Your task to perform on an android device: set the timer Image 0: 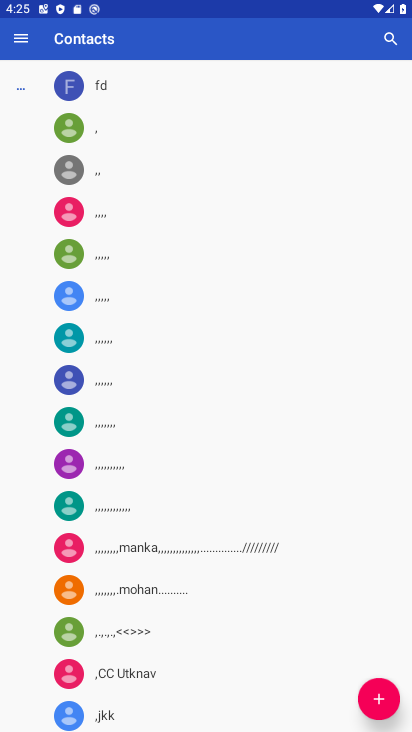
Step 0: press back button
Your task to perform on an android device: set the timer Image 1: 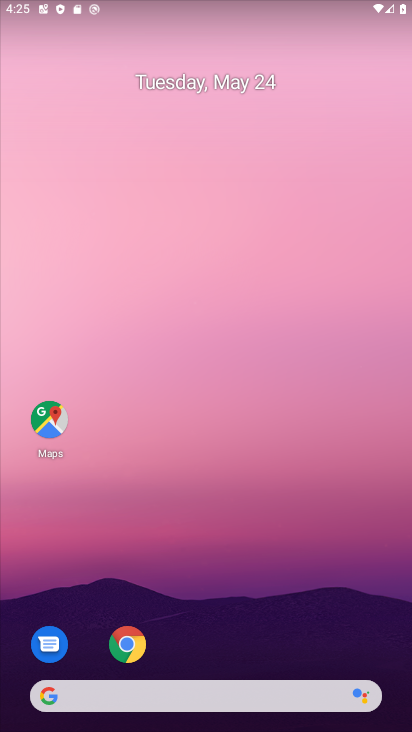
Step 1: drag from (270, 553) to (188, 117)
Your task to perform on an android device: set the timer Image 2: 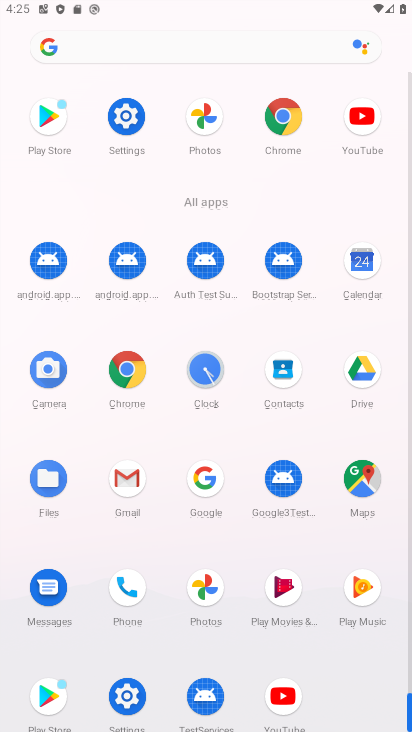
Step 2: click (206, 376)
Your task to perform on an android device: set the timer Image 3: 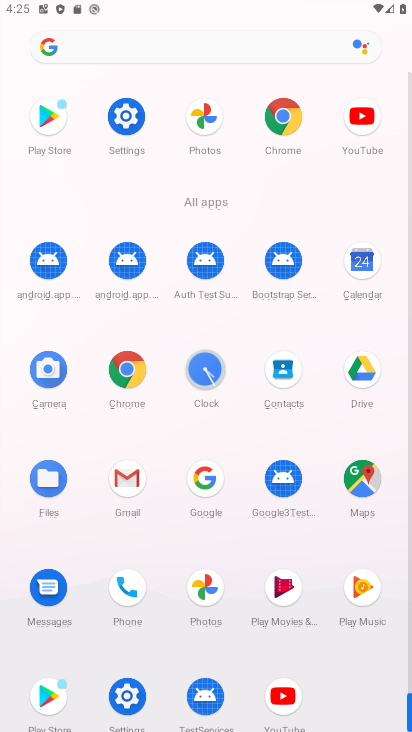
Step 3: click (207, 375)
Your task to perform on an android device: set the timer Image 4: 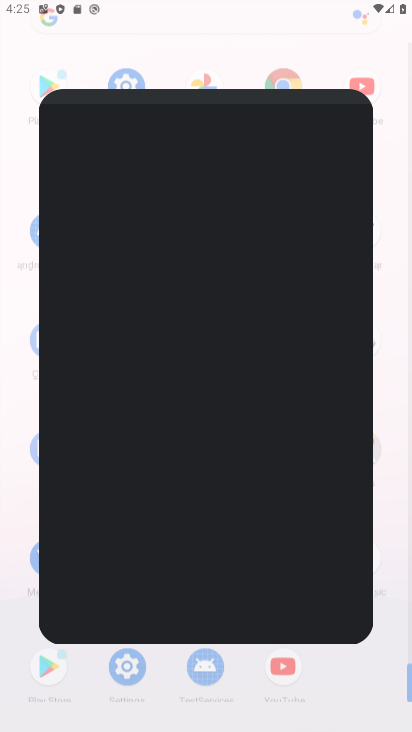
Step 4: click (207, 375)
Your task to perform on an android device: set the timer Image 5: 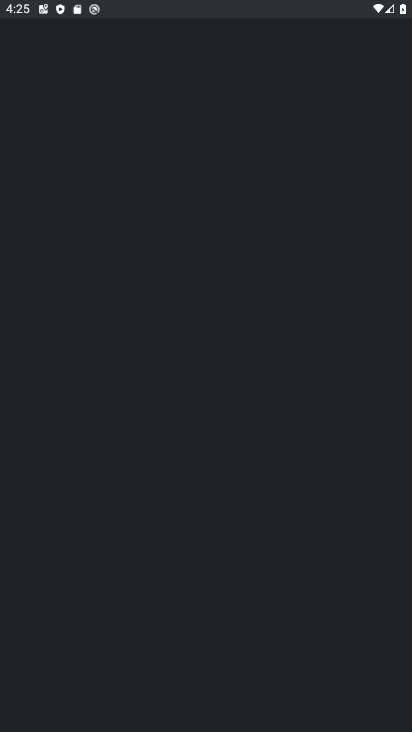
Step 5: click (207, 375)
Your task to perform on an android device: set the timer Image 6: 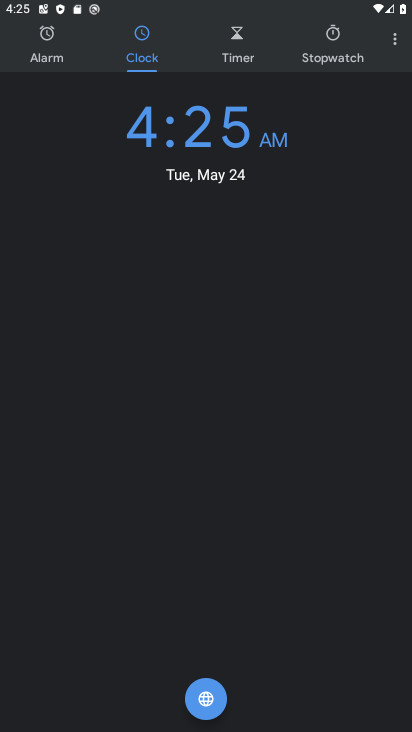
Step 6: click (233, 49)
Your task to perform on an android device: set the timer Image 7: 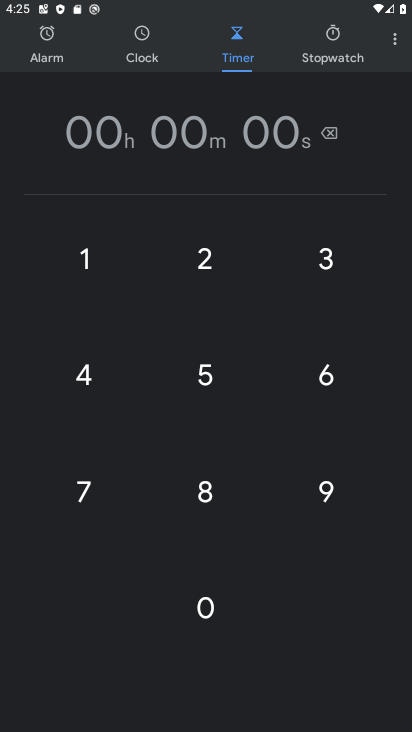
Step 7: click (201, 488)
Your task to perform on an android device: set the timer Image 8: 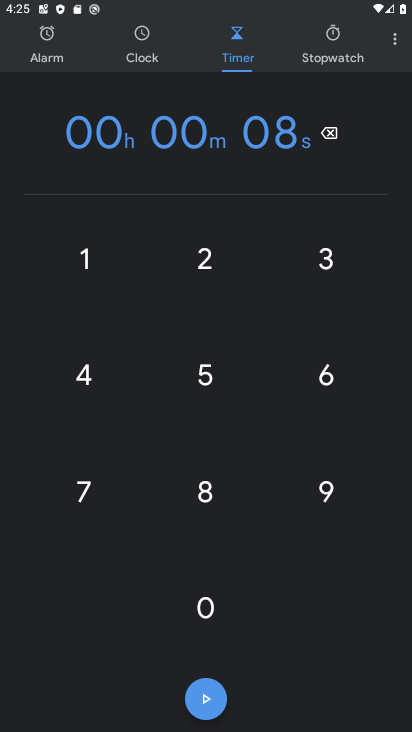
Step 8: click (202, 487)
Your task to perform on an android device: set the timer Image 9: 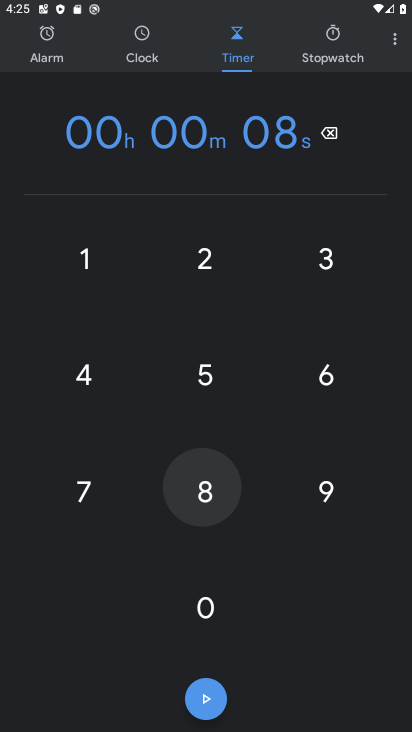
Step 9: click (202, 487)
Your task to perform on an android device: set the timer Image 10: 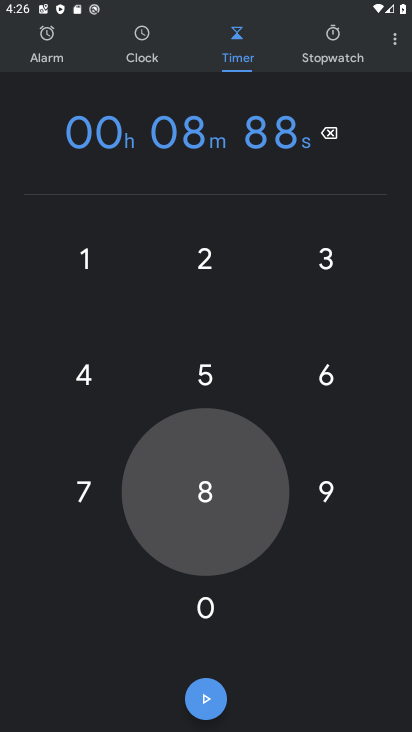
Step 10: click (202, 488)
Your task to perform on an android device: set the timer Image 11: 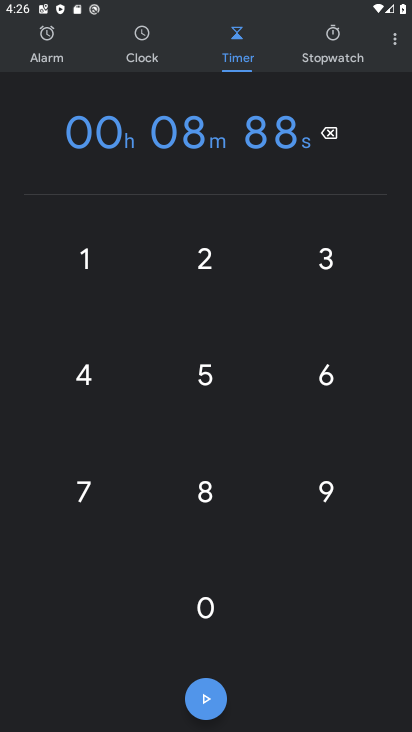
Step 11: click (202, 488)
Your task to perform on an android device: set the timer Image 12: 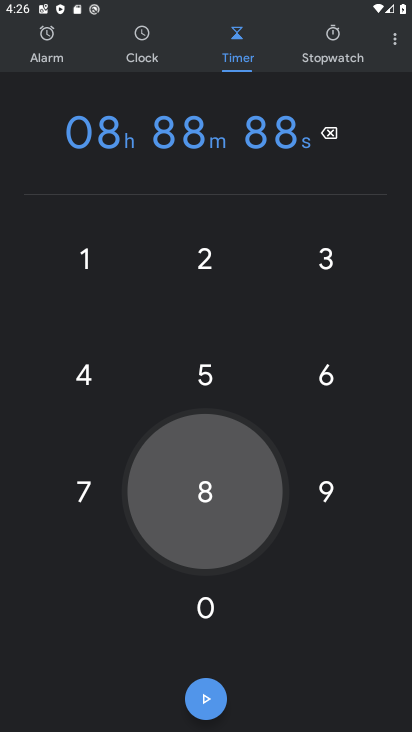
Step 12: click (204, 489)
Your task to perform on an android device: set the timer Image 13: 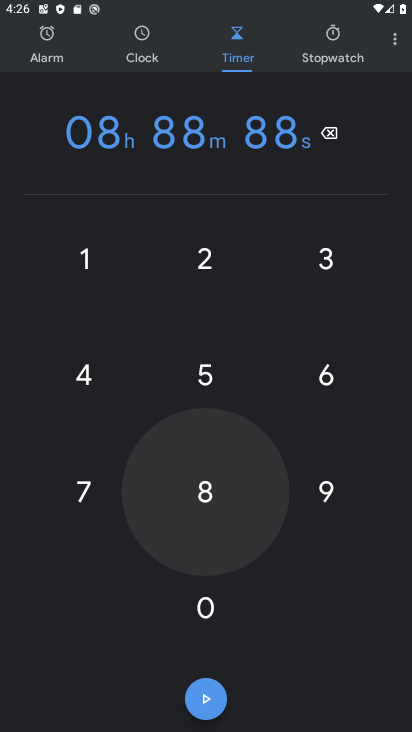
Step 13: click (204, 489)
Your task to perform on an android device: set the timer Image 14: 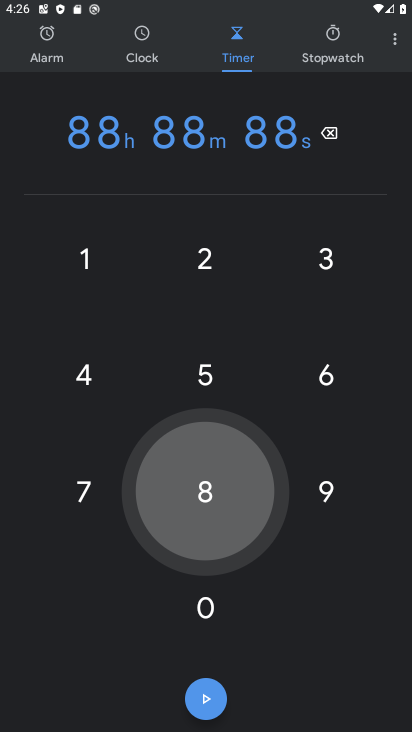
Step 14: click (207, 489)
Your task to perform on an android device: set the timer Image 15: 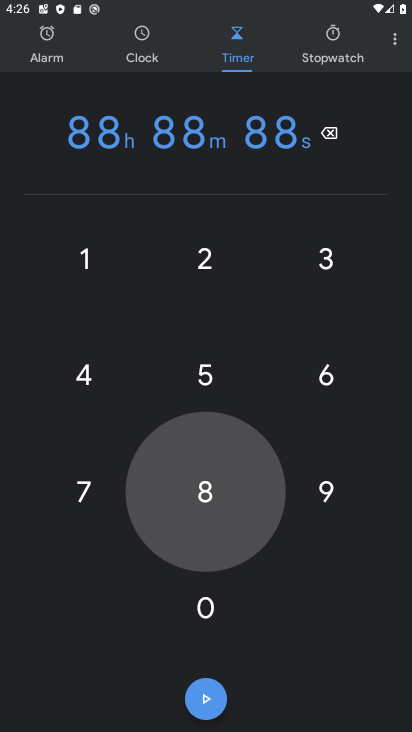
Step 15: click (209, 485)
Your task to perform on an android device: set the timer Image 16: 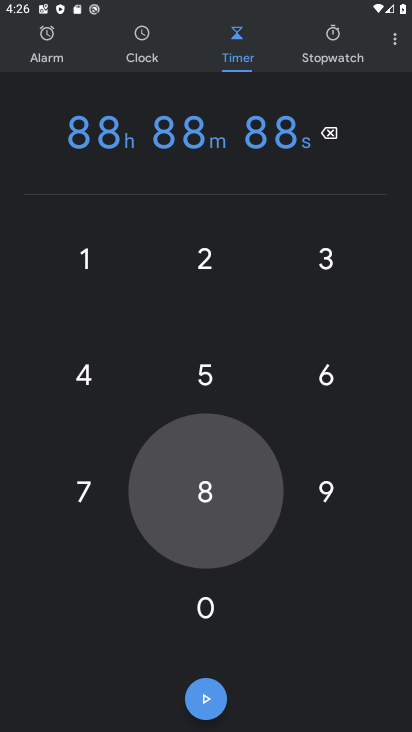
Step 16: click (211, 488)
Your task to perform on an android device: set the timer Image 17: 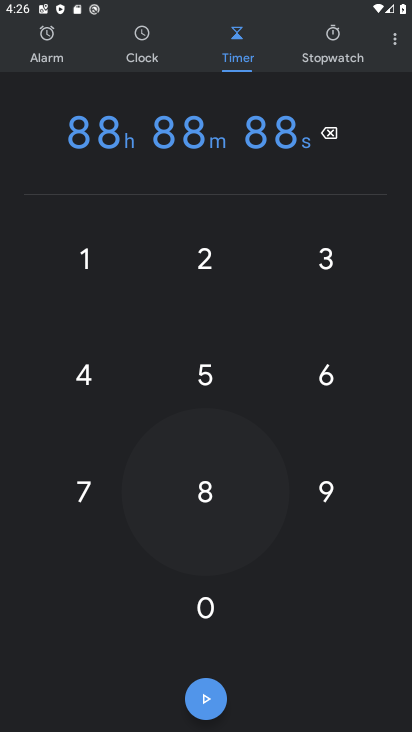
Step 17: click (208, 493)
Your task to perform on an android device: set the timer Image 18: 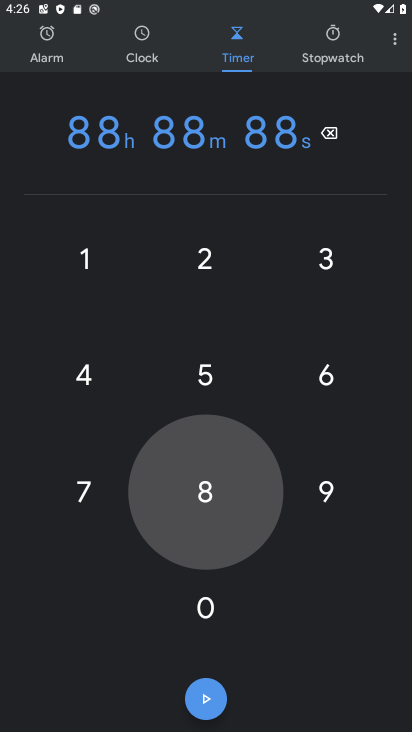
Step 18: click (204, 491)
Your task to perform on an android device: set the timer Image 19: 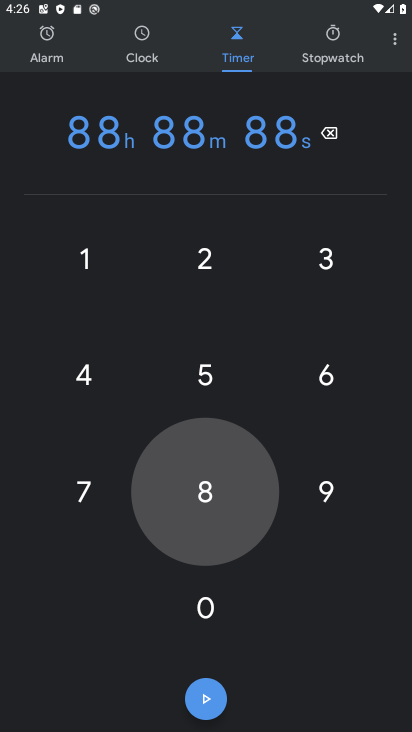
Step 19: click (205, 488)
Your task to perform on an android device: set the timer Image 20: 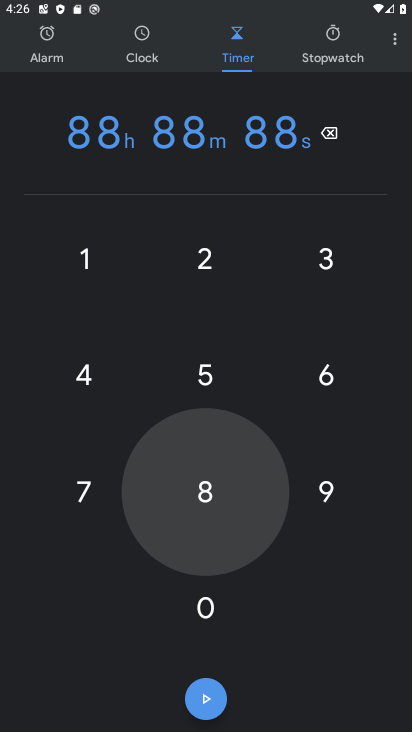
Step 20: click (214, 486)
Your task to perform on an android device: set the timer Image 21: 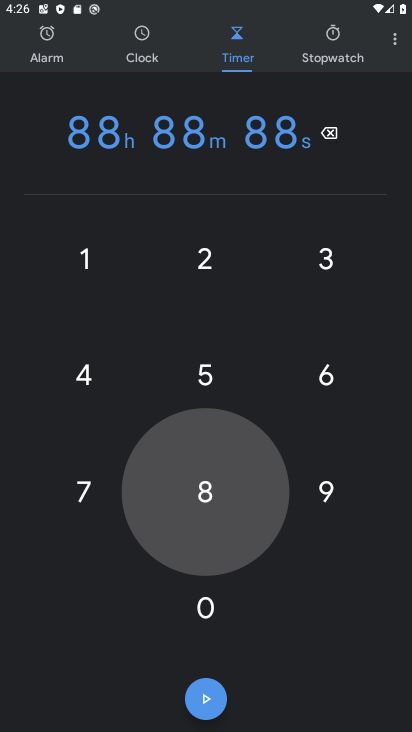
Step 21: click (213, 487)
Your task to perform on an android device: set the timer Image 22: 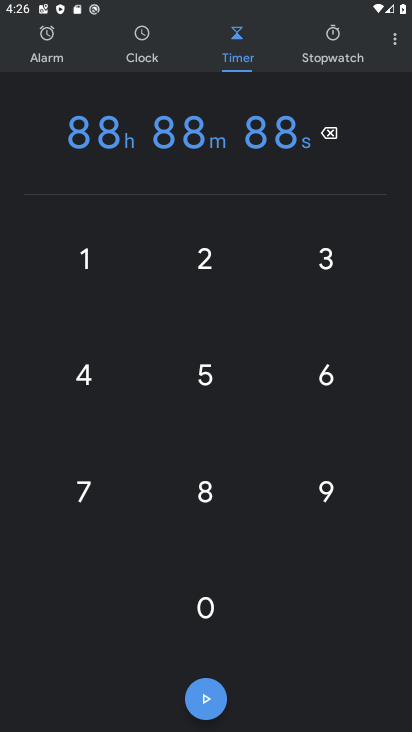
Step 22: click (213, 487)
Your task to perform on an android device: set the timer Image 23: 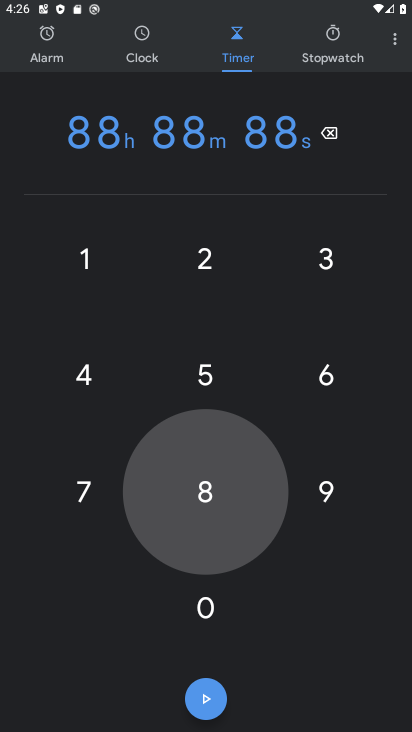
Step 23: click (213, 487)
Your task to perform on an android device: set the timer Image 24: 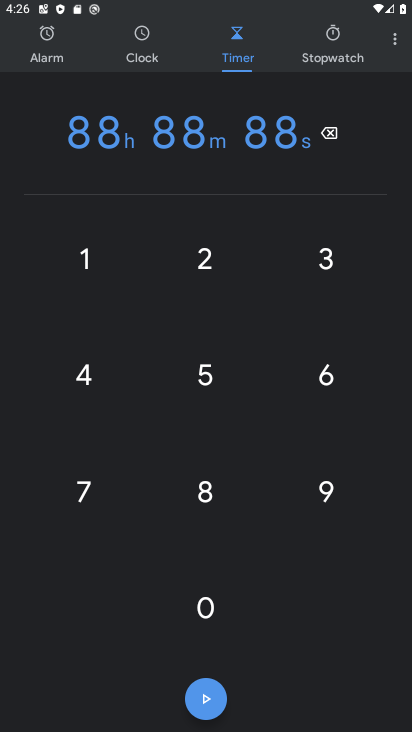
Step 24: click (208, 373)
Your task to perform on an android device: set the timer Image 25: 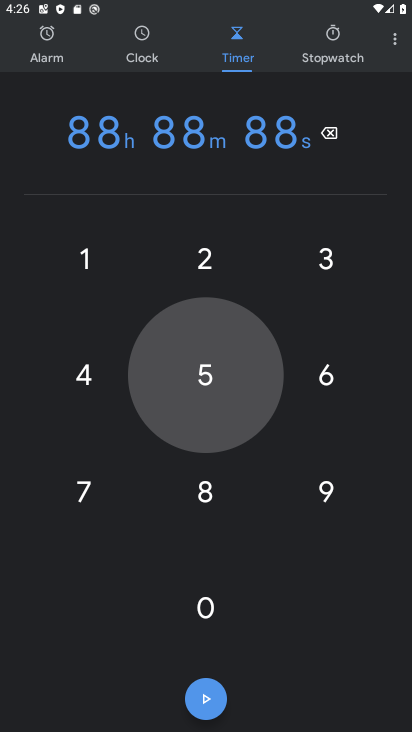
Step 25: click (209, 374)
Your task to perform on an android device: set the timer Image 26: 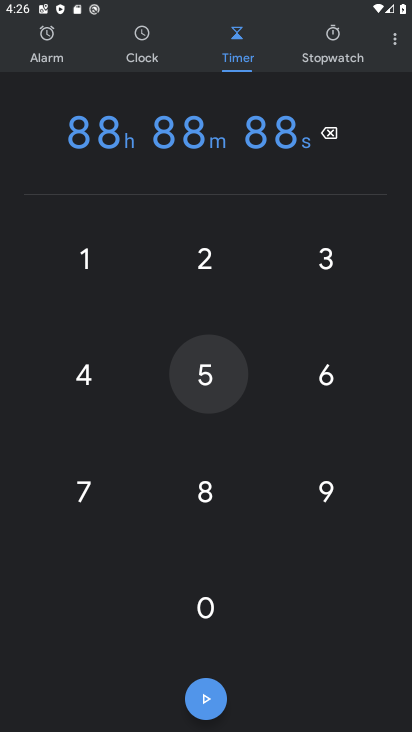
Step 26: click (209, 374)
Your task to perform on an android device: set the timer Image 27: 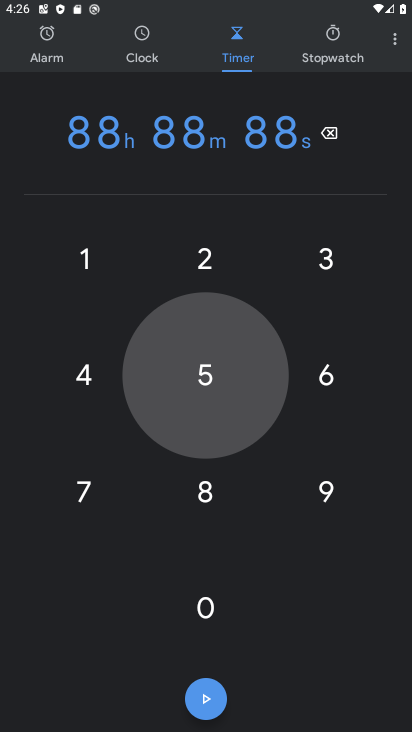
Step 27: click (209, 374)
Your task to perform on an android device: set the timer Image 28: 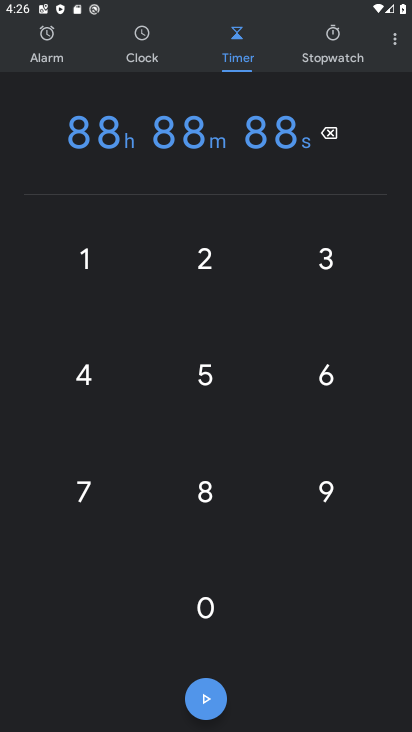
Step 28: click (206, 706)
Your task to perform on an android device: set the timer Image 29: 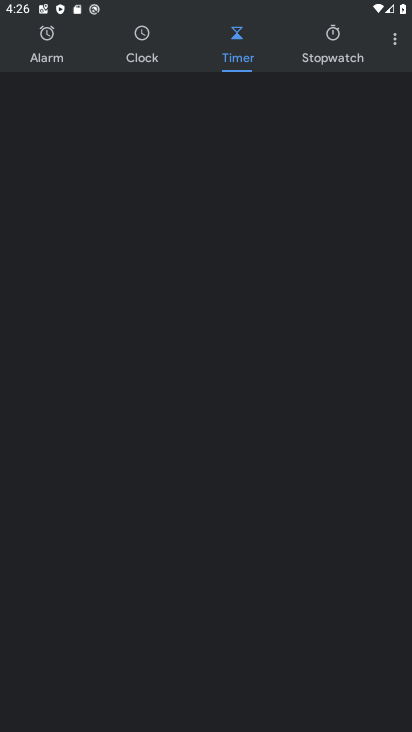
Step 29: click (206, 706)
Your task to perform on an android device: set the timer Image 30: 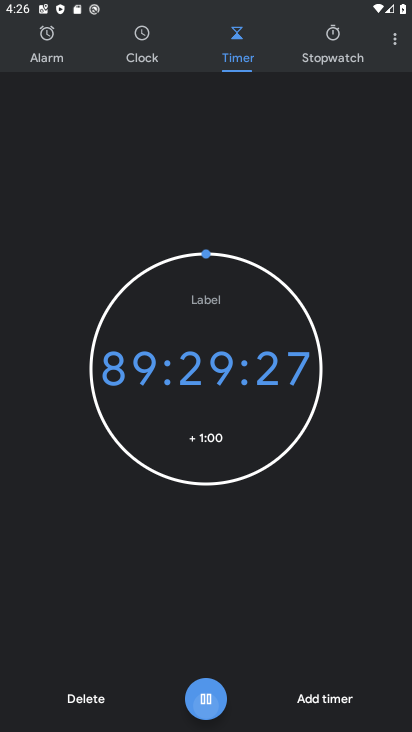
Step 30: click (210, 687)
Your task to perform on an android device: set the timer Image 31: 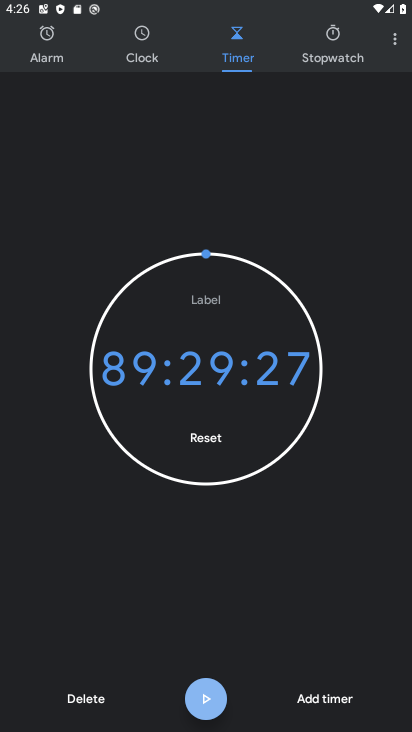
Step 31: click (209, 687)
Your task to perform on an android device: set the timer Image 32: 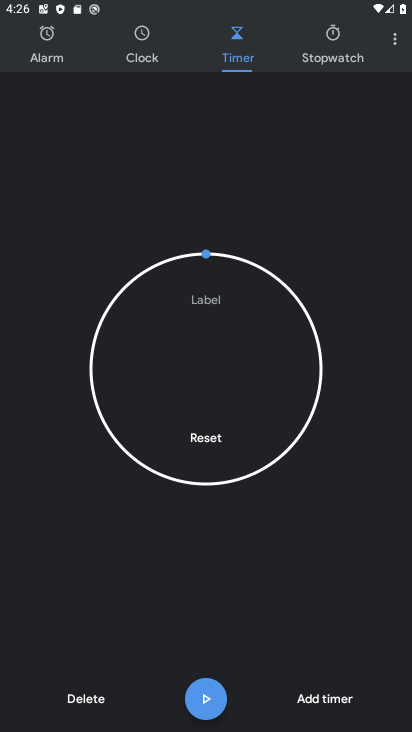
Step 32: click (207, 695)
Your task to perform on an android device: set the timer Image 33: 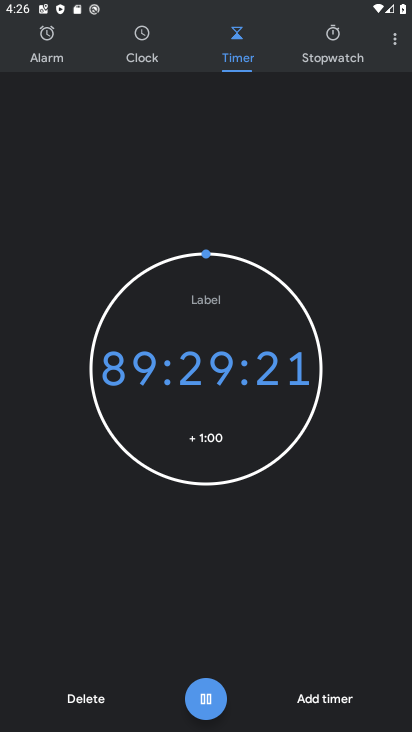
Step 33: click (205, 701)
Your task to perform on an android device: set the timer Image 34: 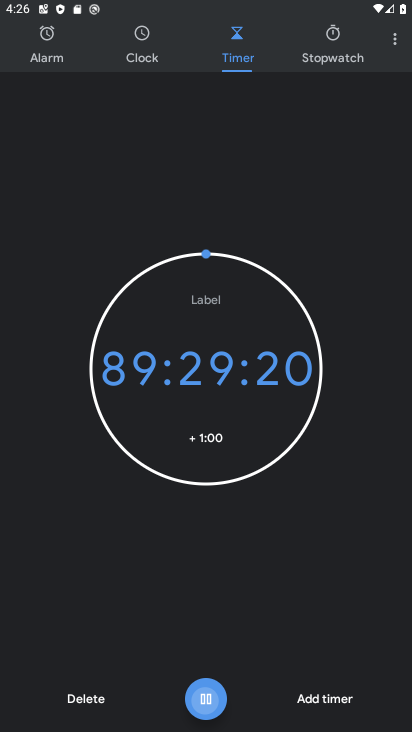
Step 34: click (204, 702)
Your task to perform on an android device: set the timer Image 35: 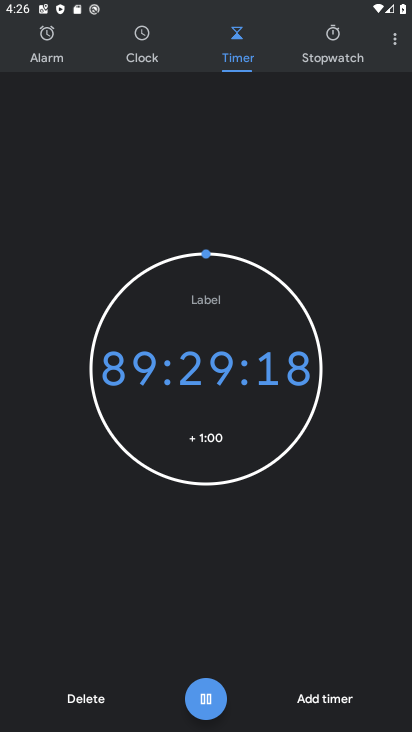
Step 35: task complete